Your task to perform on an android device: turn pop-ups off in chrome Image 0: 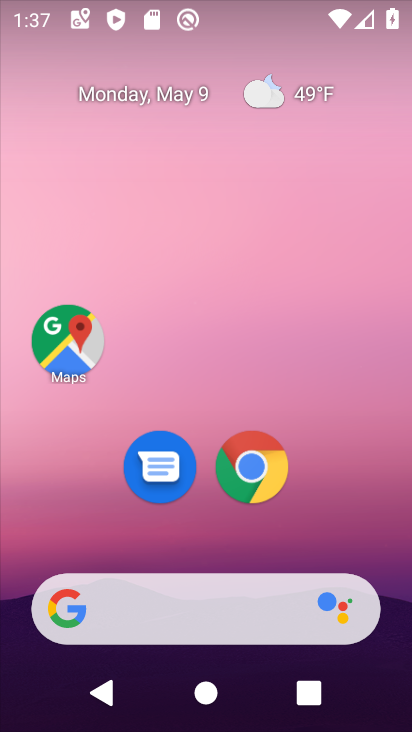
Step 0: drag from (342, 426) to (349, 159)
Your task to perform on an android device: turn pop-ups off in chrome Image 1: 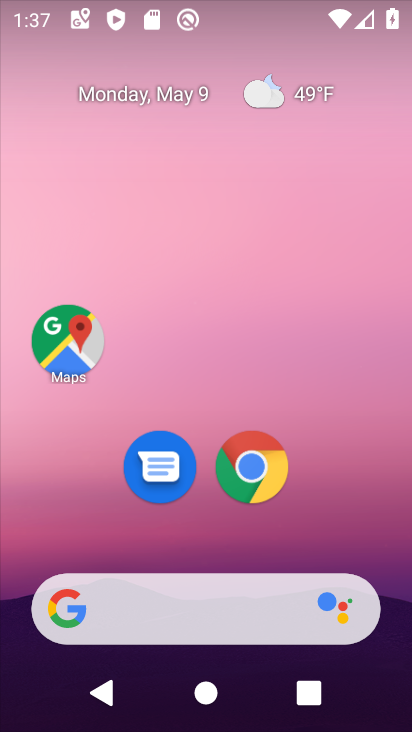
Step 1: drag from (385, 558) to (330, 174)
Your task to perform on an android device: turn pop-ups off in chrome Image 2: 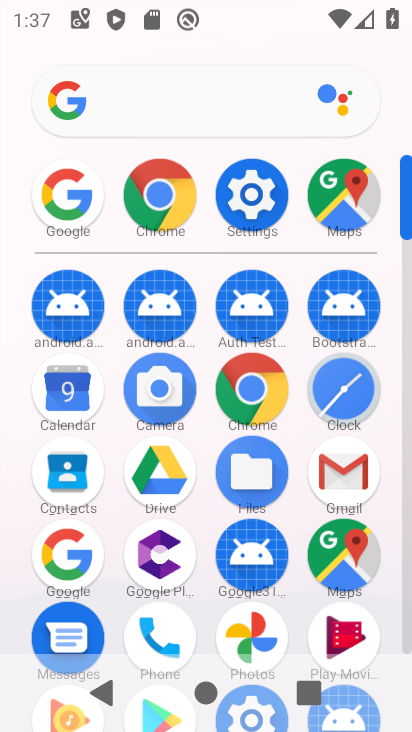
Step 2: click (184, 217)
Your task to perform on an android device: turn pop-ups off in chrome Image 3: 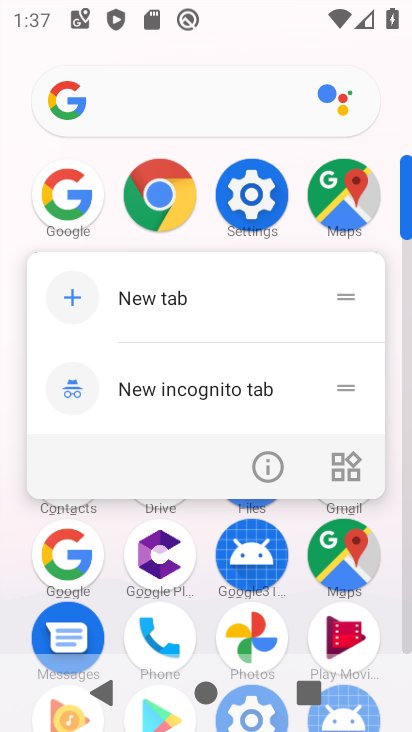
Step 3: click (183, 218)
Your task to perform on an android device: turn pop-ups off in chrome Image 4: 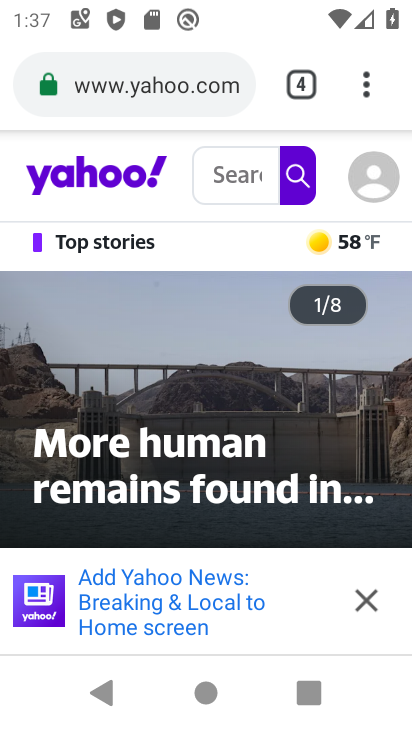
Step 4: drag from (365, 93) to (193, 513)
Your task to perform on an android device: turn pop-ups off in chrome Image 5: 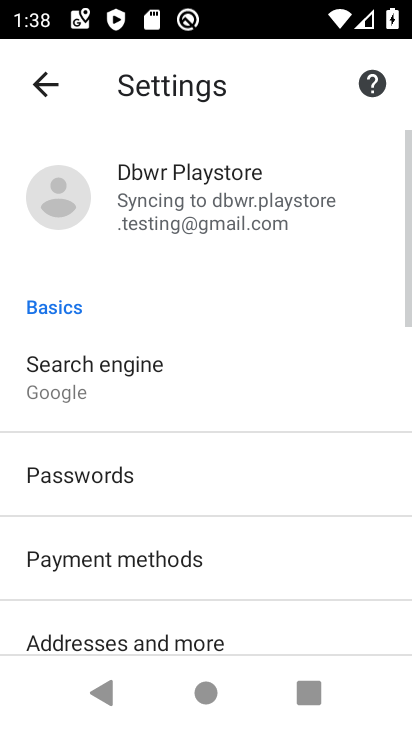
Step 5: drag from (264, 611) to (250, 326)
Your task to perform on an android device: turn pop-ups off in chrome Image 6: 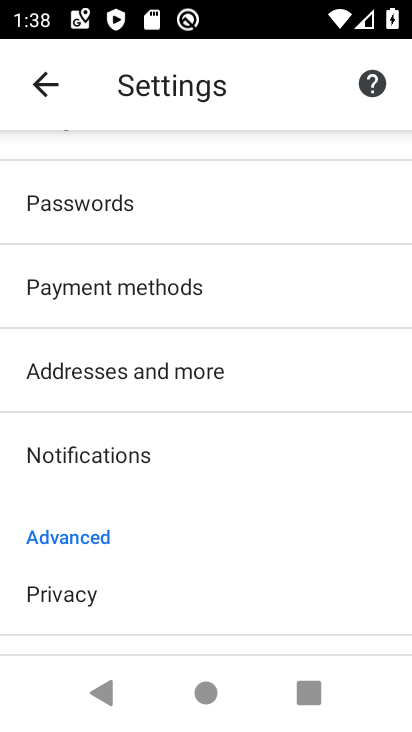
Step 6: drag from (322, 611) to (283, 313)
Your task to perform on an android device: turn pop-ups off in chrome Image 7: 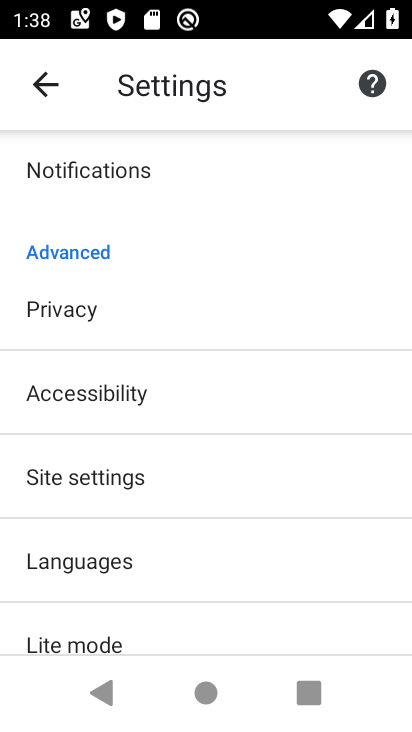
Step 7: click (123, 480)
Your task to perform on an android device: turn pop-ups off in chrome Image 8: 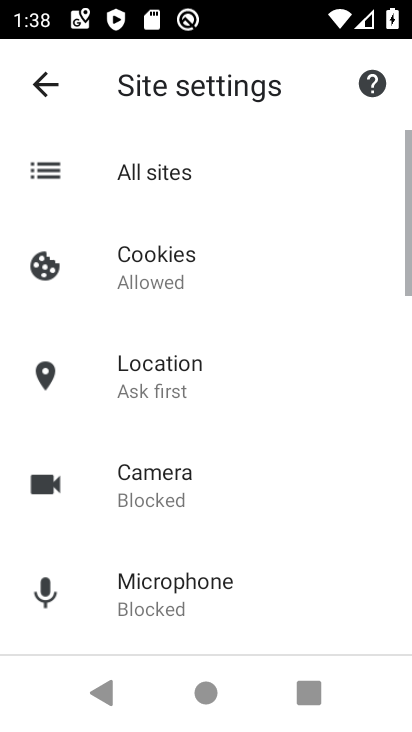
Step 8: drag from (316, 557) to (319, 213)
Your task to perform on an android device: turn pop-ups off in chrome Image 9: 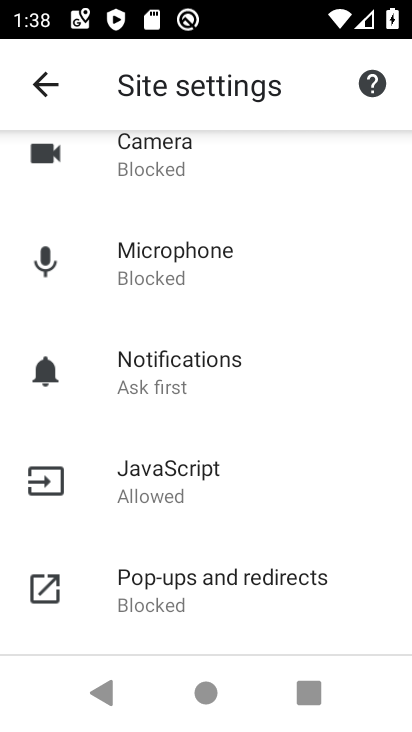
Step 9: click (316, 577)
Your task to perform on an android device: turn pop-ups off in chrome Image 10: 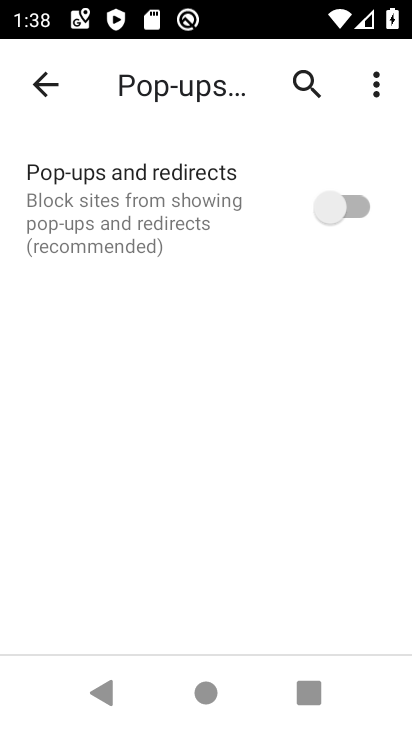
Step 10: task complete